Your task to perform on an android device: Play the last video I watched on Youtube Image 0: 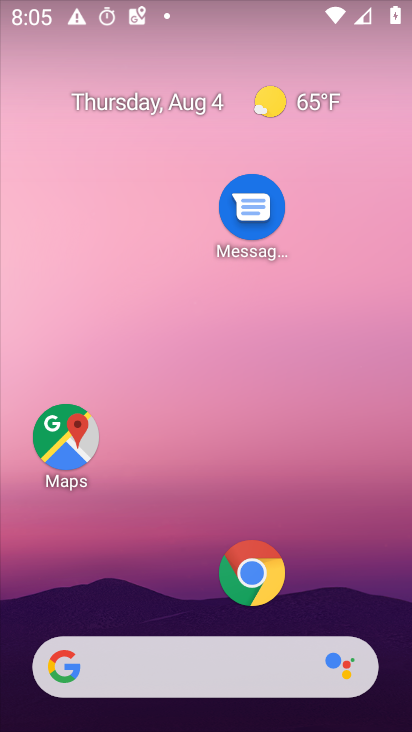
Step 0: press home button
Your task to perform on an android device: Play the last video I watched on Youtube Image 1: 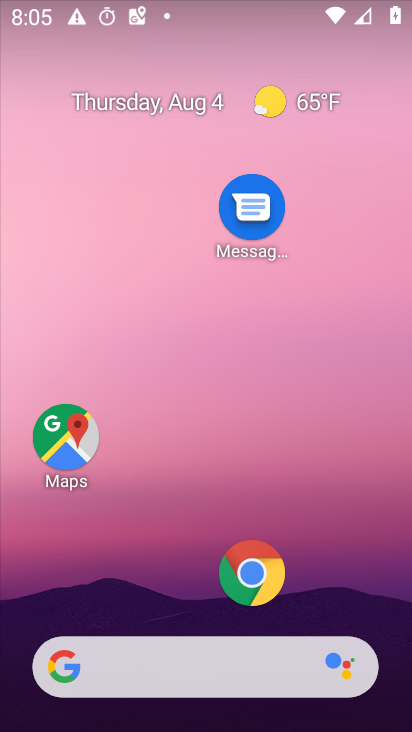
Step 1: drag from (148, 609) to (283, 118)
Your task to perform on an android device: Play the last video I watched on Youtube Image 2: 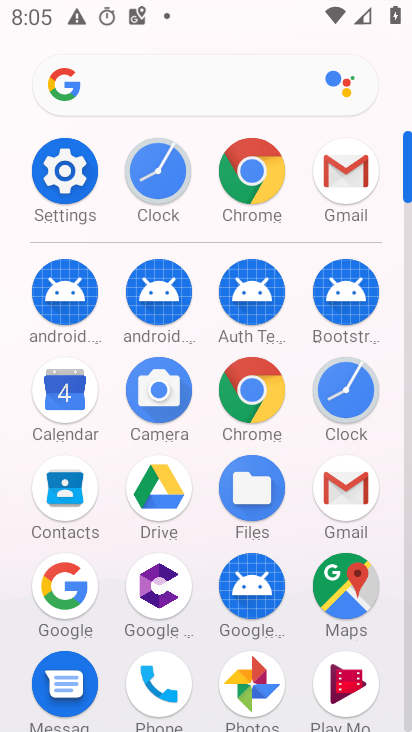
Step 2: drag from (295, 663) to (392, 282)
Your task to perform on an android device: Play the last video I watched on Youtube Image 3: 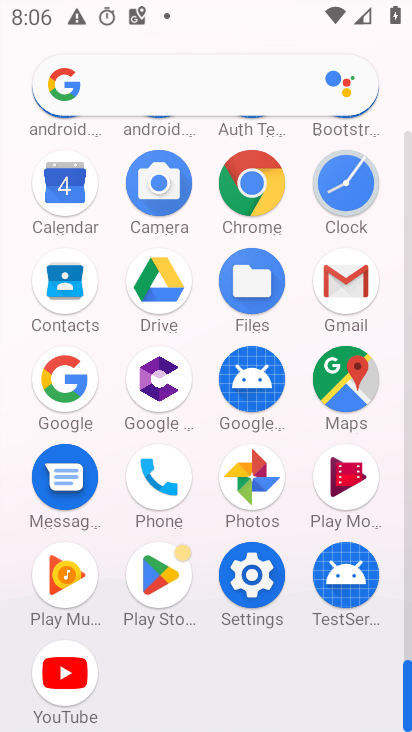
Step 3: click (53, 670)
Your task to perform on an android device: Play the last video I watched on Youtube Image 4: 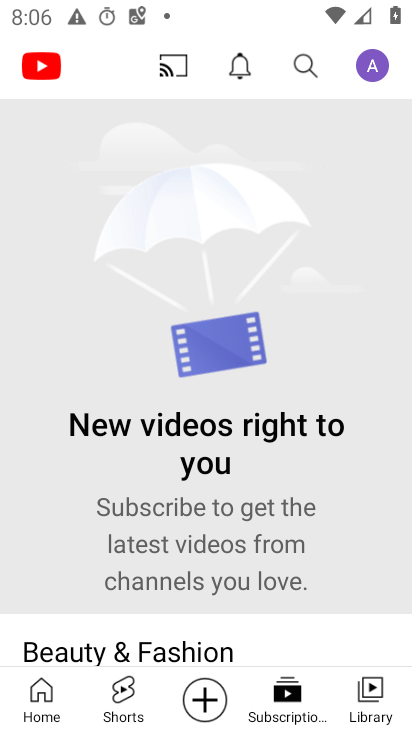
Step 4: click (358, 697)
Your task to perform on an android device: Play the last video I watched on Youtube Image 5: 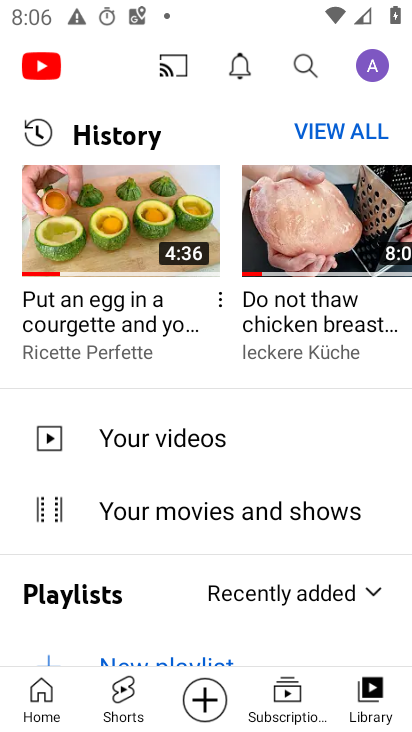
Step 5: click (115, 214)
Your task to perform on an android device: Play the last video I watched on Youtube Image 6: 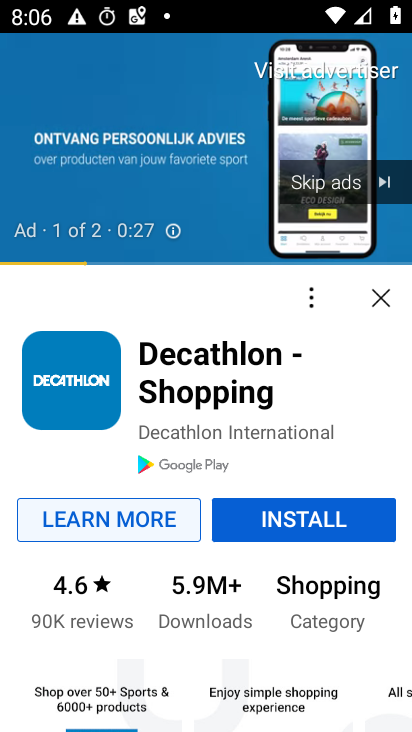
Step 6: click (372, 176)
Your task to perform on an android device: Play the last video I watched on Youtube Image 7: 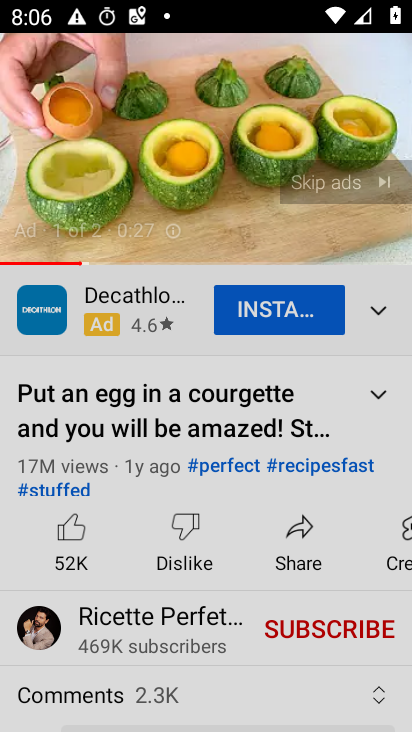
Step 7: click (386, 299)
Your task to perform on an android device: Play the last video I watched on Youtube Image 8: 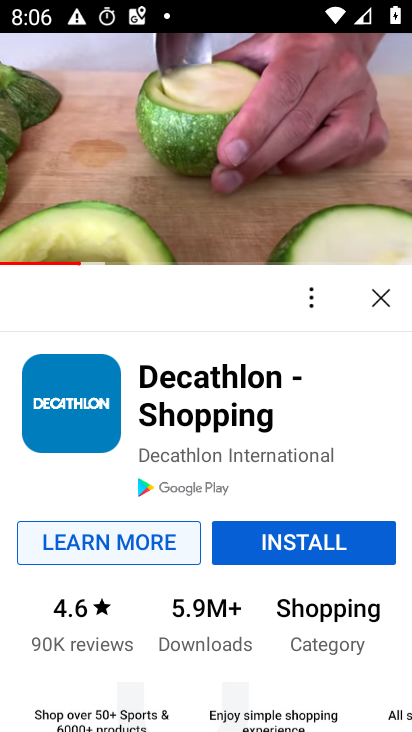
Step 8: task complete